Your task to perform on an android device: Open the stopwatch Image 0: 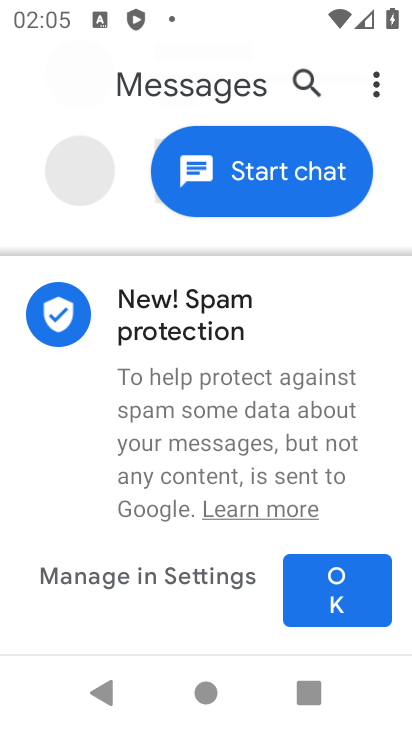
Step 0: press home button
Your task to perform on an android device: Open the stopwatch Image 1: 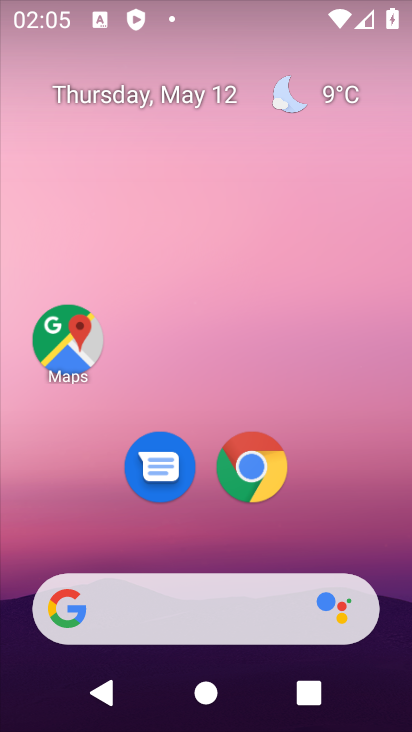
Step 1: drag from (259, 525) to (276, 237)
Your task to perform on an android device: Open the stopwatch Image 2: 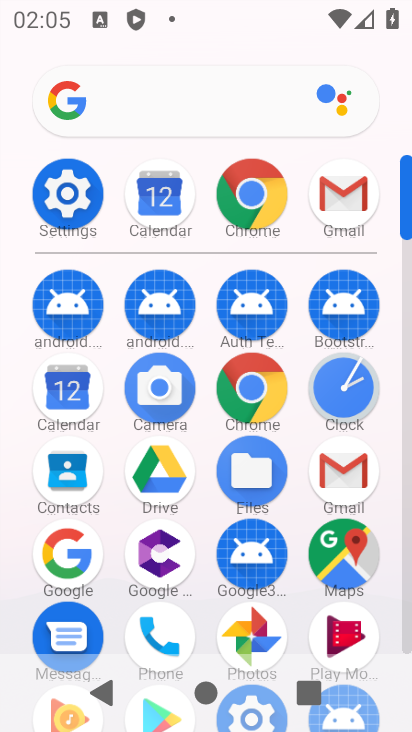
Step 2: click (334, 395)
Your task to perform on an android device: Open the stopwatch Image 3: 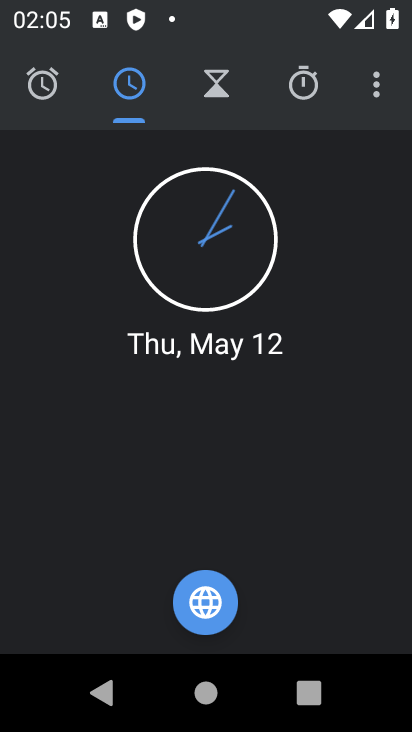
Step 3: click (283, 88)
Your task to perform on an android device: Open the stopwatch Image 4: 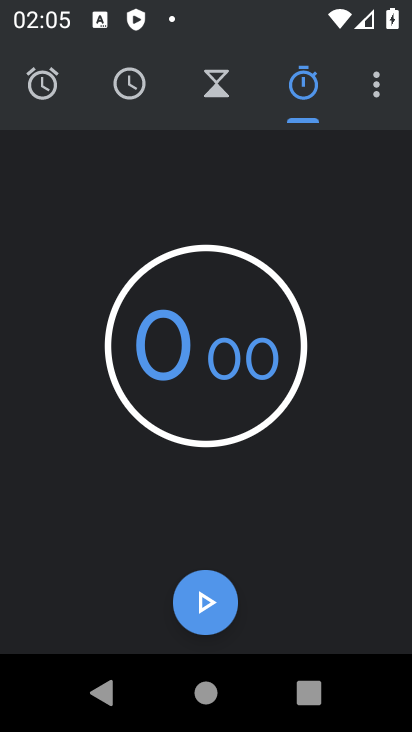
Step 4: task complete